Your task to perform on an android device: Go to accessibility settings Image 0: 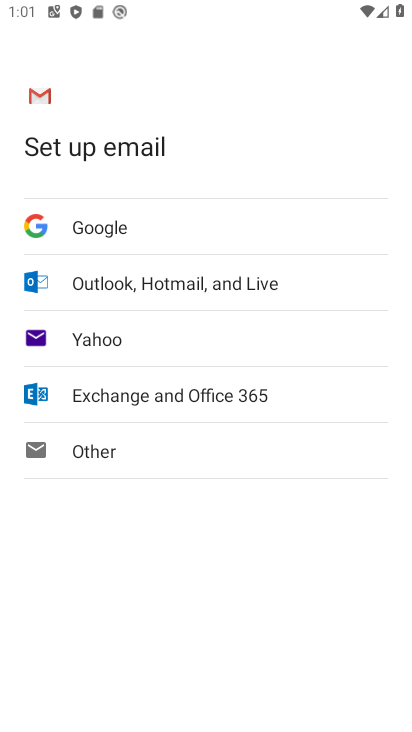
Step 0: press home button
Your task to perform on an android device: Go to accessibility settings Image 1: 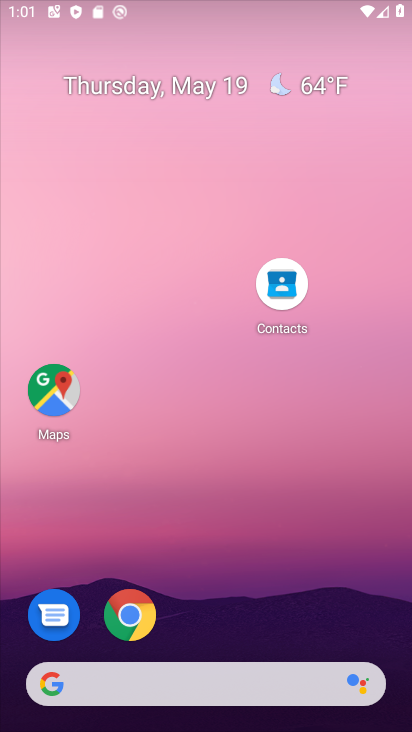
Step 1: drag from (308, 635) to (291, 181)
Your task to perform on an android device: Go to accessibility settings Image 2: 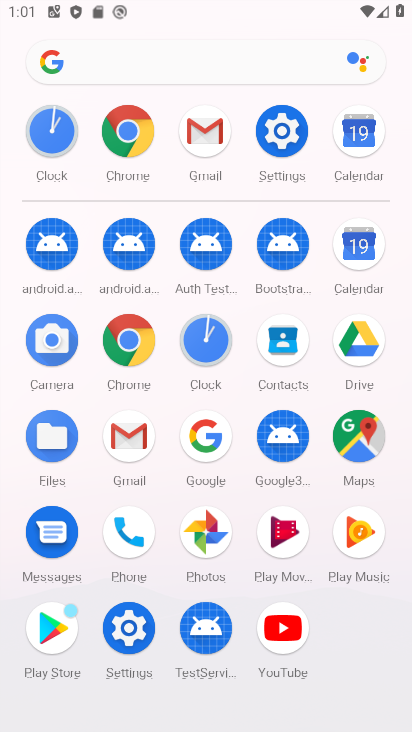
Step 2: click (285, 133)
Your task to perform on an android device: Go to accessibility settings Image 3: 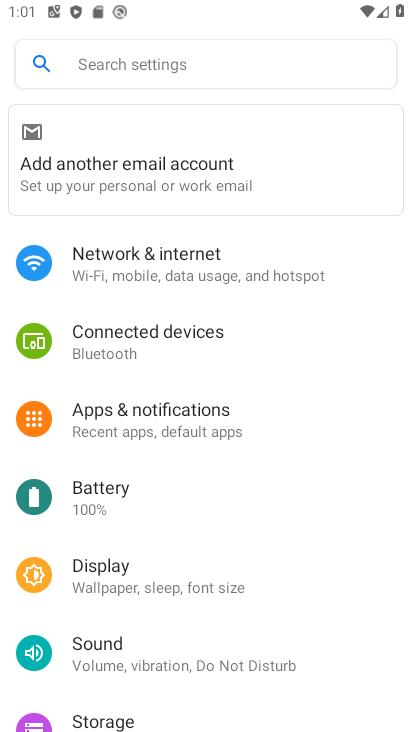
Step 3: drag from (234, 444) to (173, 139)
Your task to perform on an android device: Go to accessibility settings Image 4: 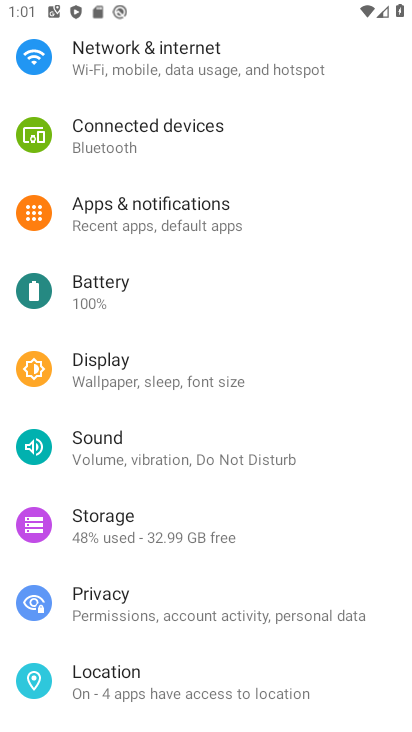
Step 4: drag from (191, 601) to (159, 163)
Your task to perform on an android device: Go to accessibility settings Image 5: 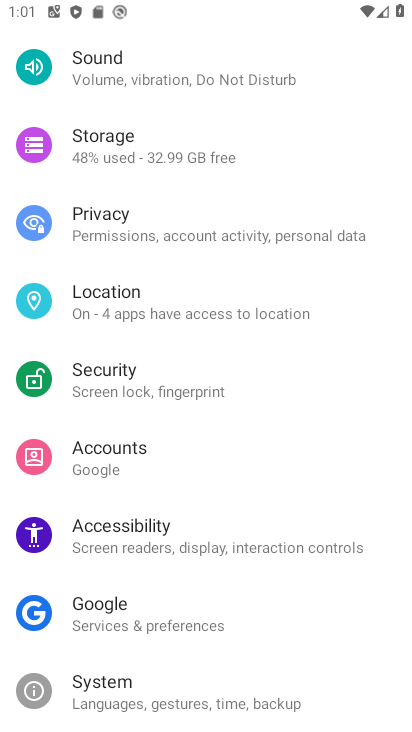
Step 5: click (231, 535)
Your task to perform on an android device: Go to accessibility settings Image 6: 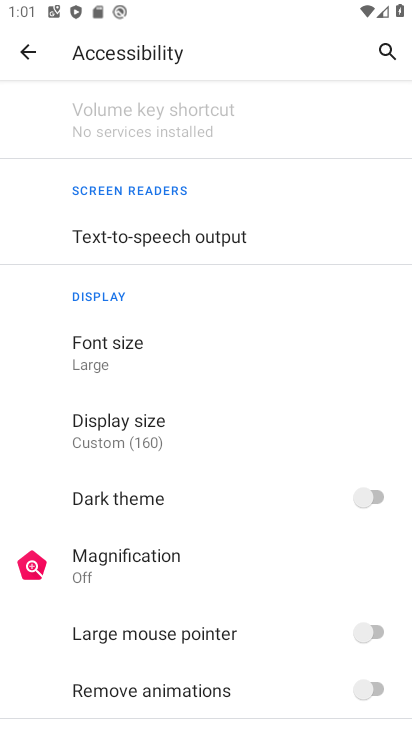
Step 6: task complete